Your task to perform on an android device: turn pop-ups off in chrome Image 0: 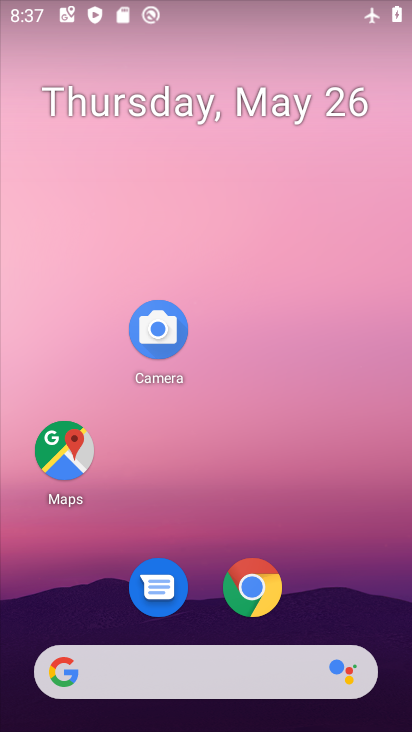
Step 0: click (233, 576)
Your task to perform on an android device: turn pop-ups off in chrome Image 1: 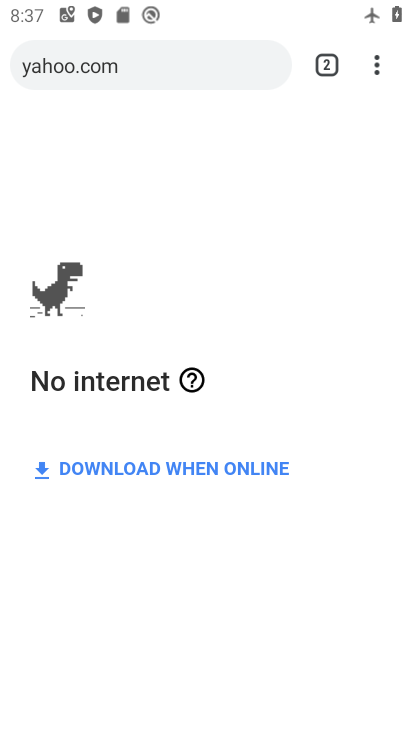
Step 1: click (373, 59)
Your task to perform on an android device: turn pop-ups off in chrome Image 2: 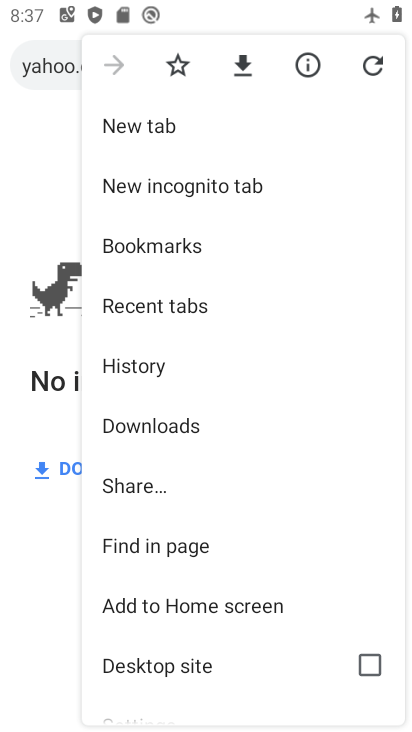
Step 2: drag from (222, 590) to (300, 196)
Your task to perform on an android device: turn pop-ups off in chrome Image 3: 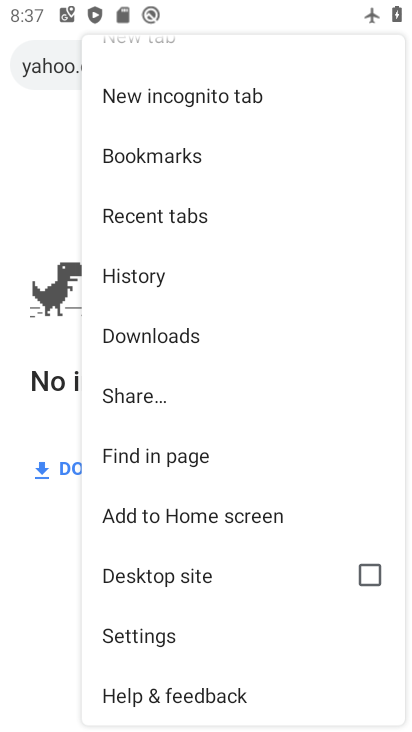
Step 3: click (178, 635)
Your task to perform on an android device: turn pop-ups off in chrome Image 4: 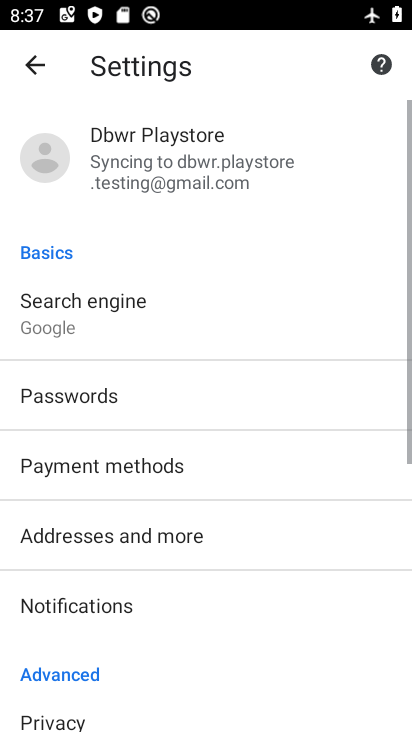
Step 4: drag from (197, 506) to (256, 306)
Your task to perform on an android device: turn pop-ups off in chrome Image 5: 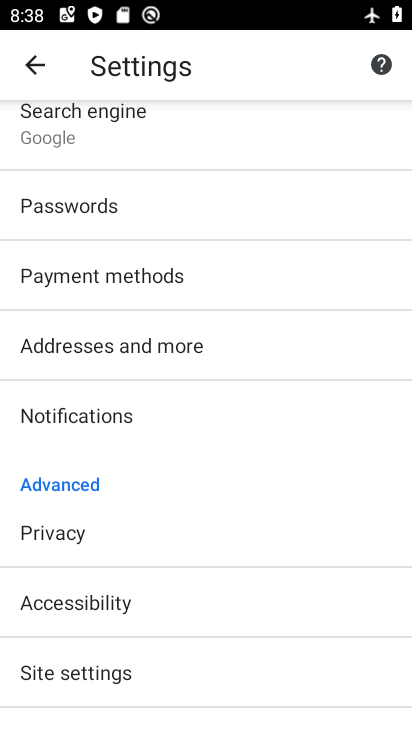
Step 5: drag from (161, 602) to (225, 331)
Your task to perform on an android device: turn pop-ups off in chrome Image 6: 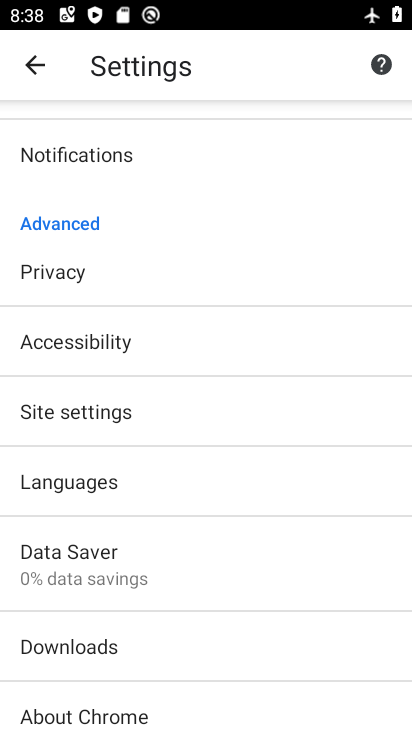
Step 6: click (154, 419)
Your task to perform on an android device: turn pop-ups off in chrome Image 7: 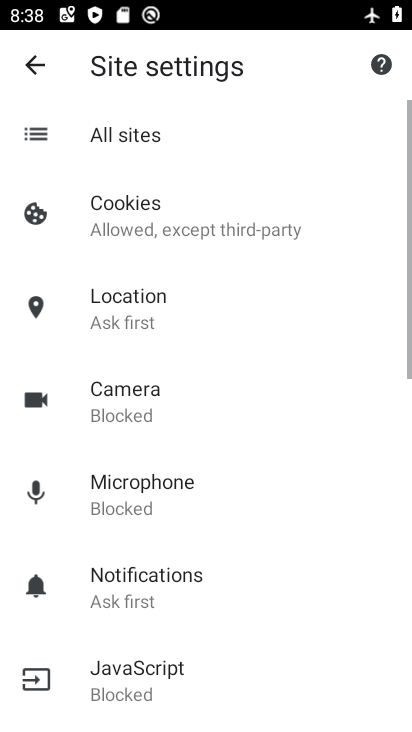
Step 7: drag from (231, 575) to (255, 279)
Your task to perform on an android device: turn pop-ups off in chrome Image 8: 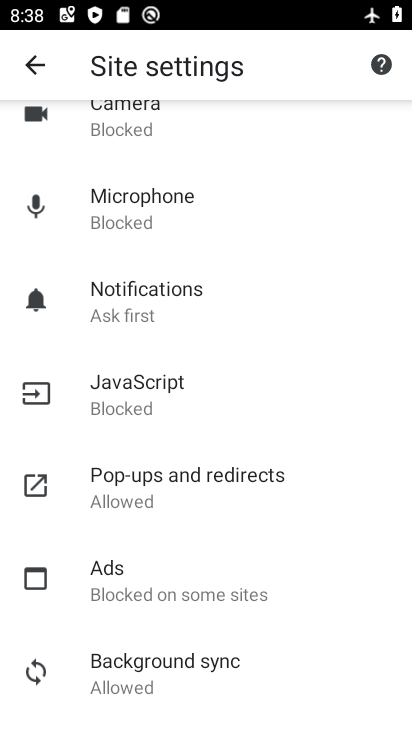
Step 8: click (232, 492)
Your task to perform on an android device: turn pop-ups off in chrome Image 9: 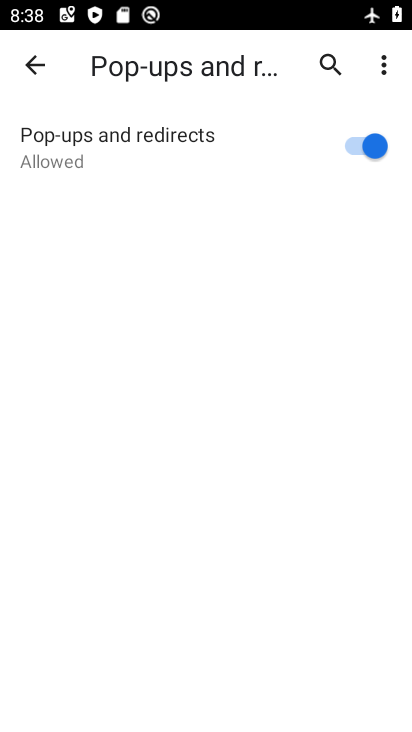
Step 9: click (346, 138)
Your task to perform on an android device: turn pop-ups off in chrome Image 10: 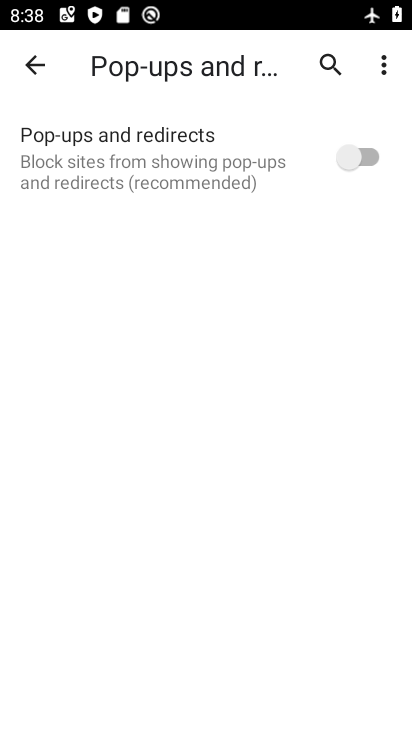
Step 10: task complete